Your task to perform on an android device: set default search engine in the chrome app Image 0: 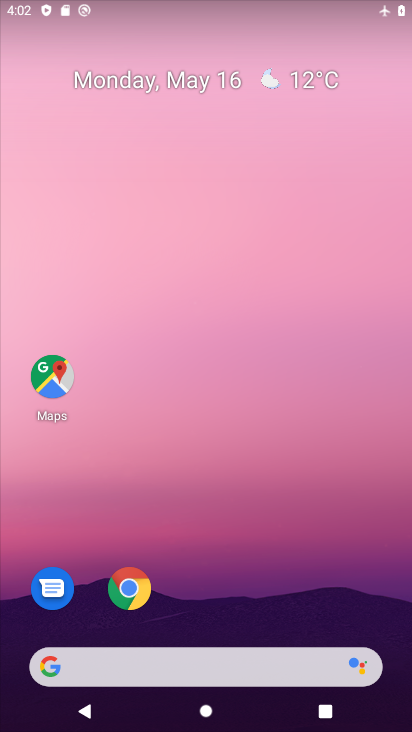
Step 0: click (124, 596)
Your task to perform on an android device: set default search engine in the chrome app Image 1: 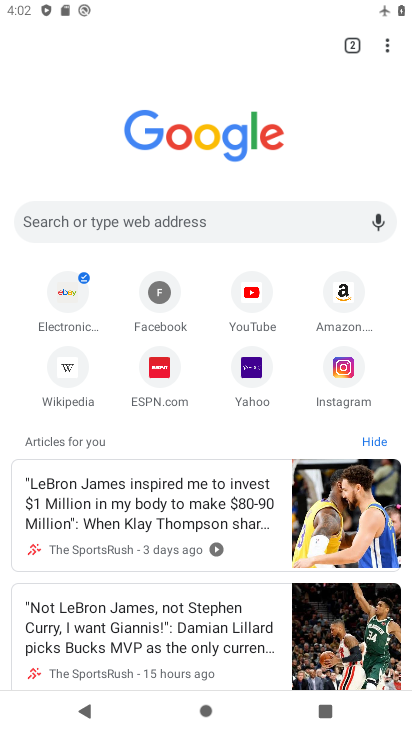
Step 1: click (391, 49)
Your task to perform on an android device: set default search engine in the chrome app Image 2: 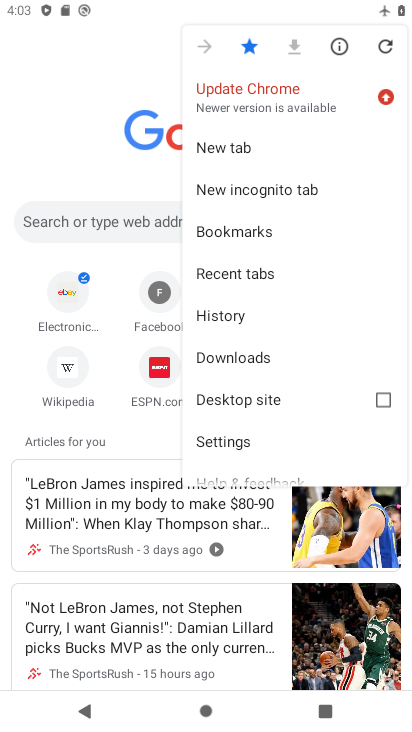
Step 2: click (241, 435)
Your task to perform on an android device: set default search engine in the chrome app Image 3: 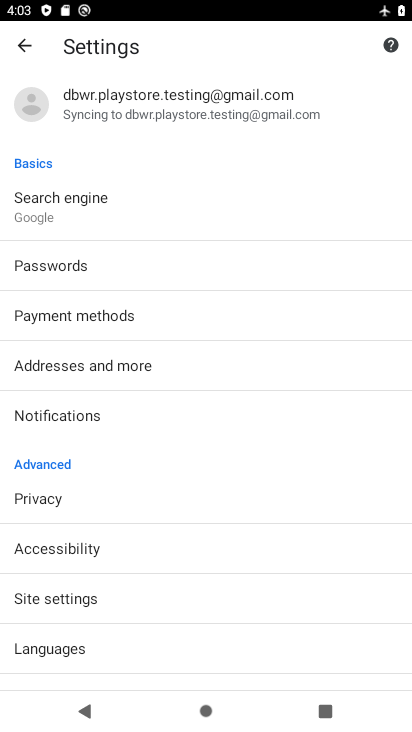
Step 3: click (108, 216)
Your task to perform on an android device: set default search engine in the chrome app Image 4: 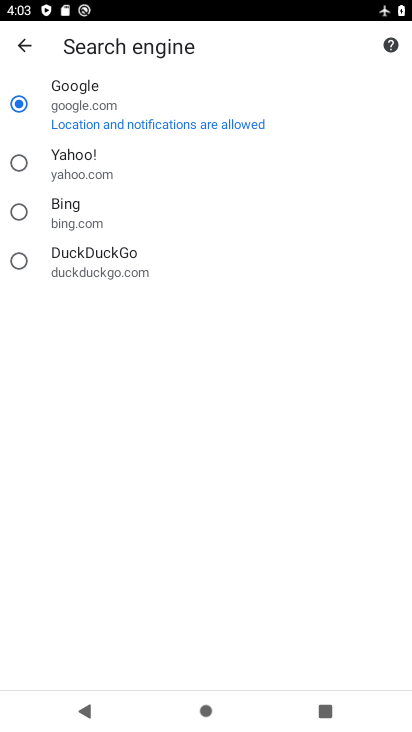
Step 4: task complete